Your task to perform on an android device: Do I have any events tomorrow? Image 0: 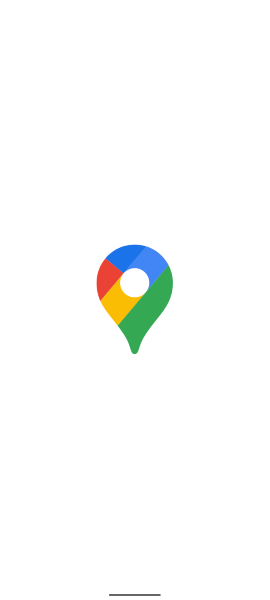
Step 0: press home button
Your task to perform on an android device: Do I have any events tomorrow? Image 1: 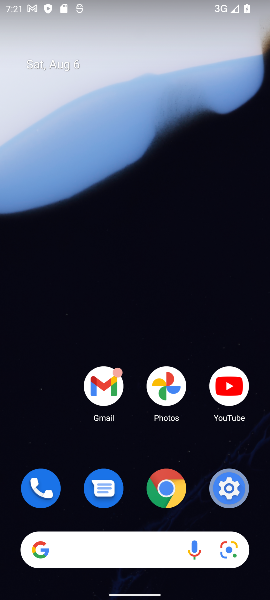
Step 1: drag from (128, 513) to (125, 109)
Your task to perform on an android device: Do I have any events tomorrow? Image 2: 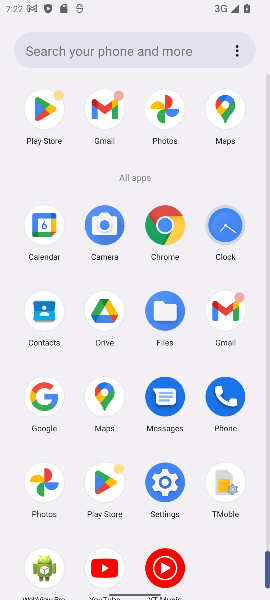
Step 2: click (39, 225)
Your task to perform on an android device: Do I have any events tomorrow? Image 3: 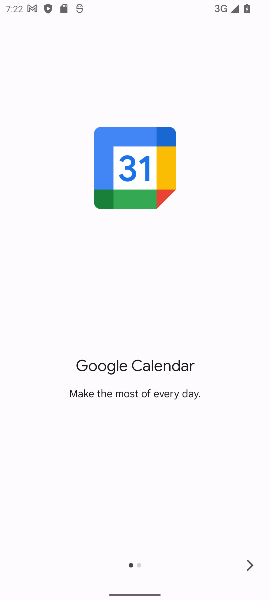
Step 3: click (250, 563)
Your task to perform on an android device: Do I have any events tomorrow? Image 4: 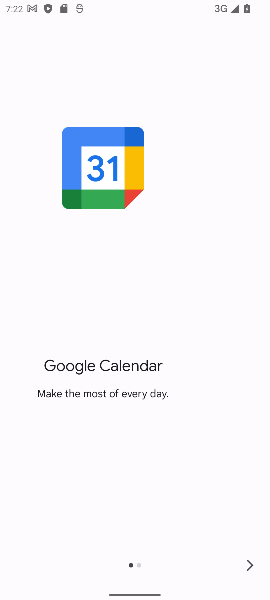
Step 4: click (249, 561)
Your task to perform on an android device: Do I have any events tomorrow? Image 5: 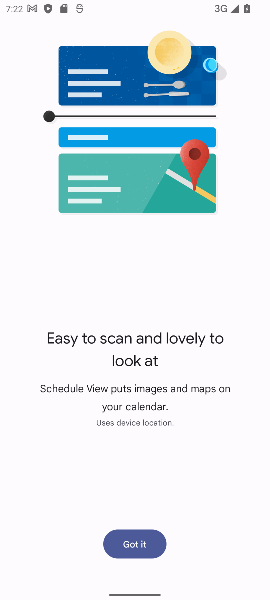
Step 5: click (125, 551)
Your task to perform on an android device: Do I have any events tomorrow? Image 6: 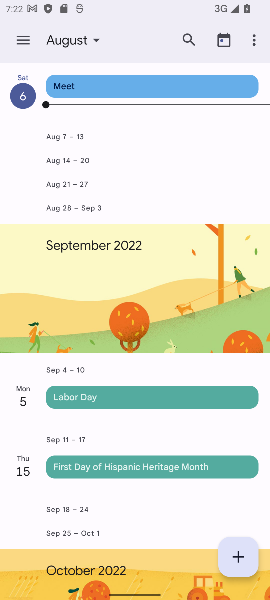
Step 6: task complete